Your task to perform on an android device: set an alarm Image 0: 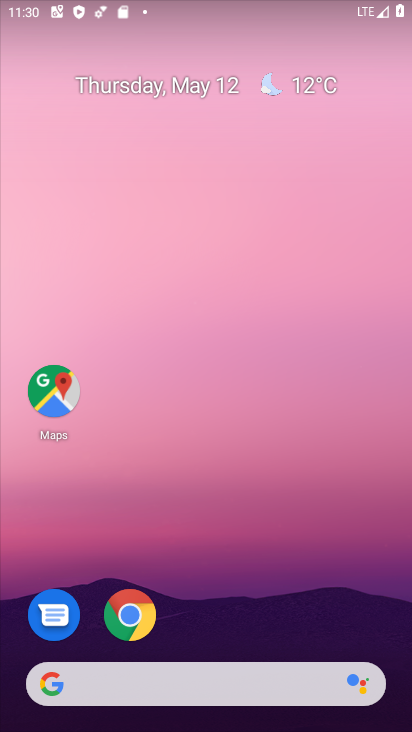
Step 0: drag from (264, 576) to (305, 63)
Your task to perform on an android device: set an alarm Image 1: 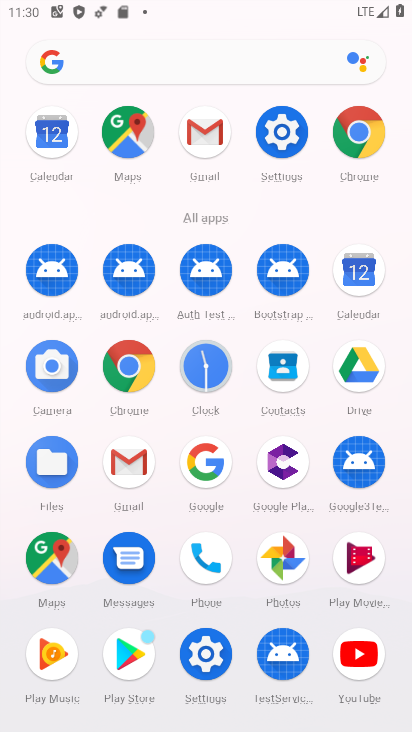
Step 1: click (209, 365)
Your task to perform on an android device: set an alarm Image 2: 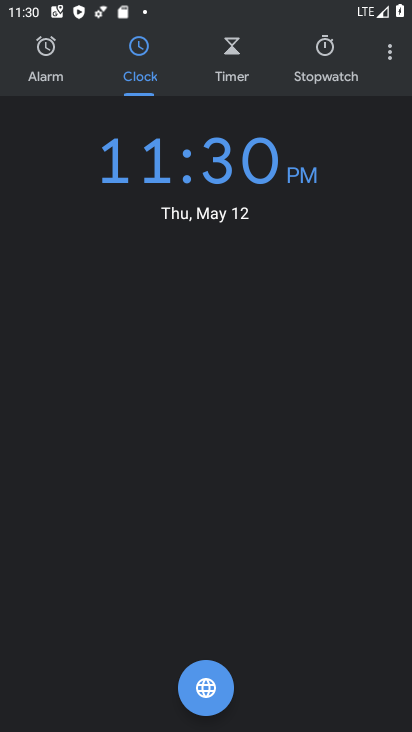
Step 2: click (49, 62)
Your task to perform on an android device: set an alarm Image 3: 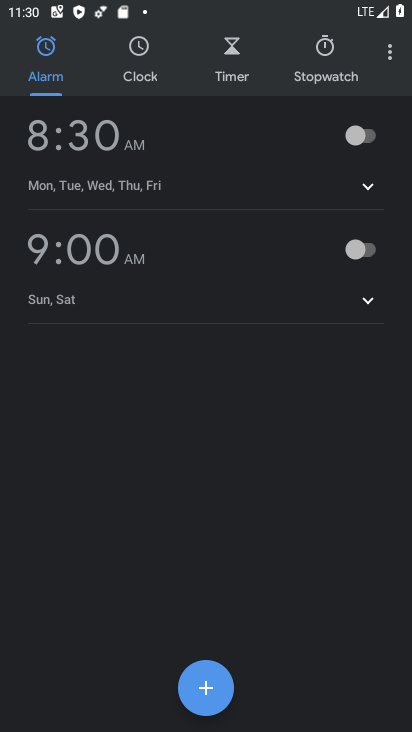
Step 3: click (199, 686)
Your task to perform on an android device: set an alarm Image 4: 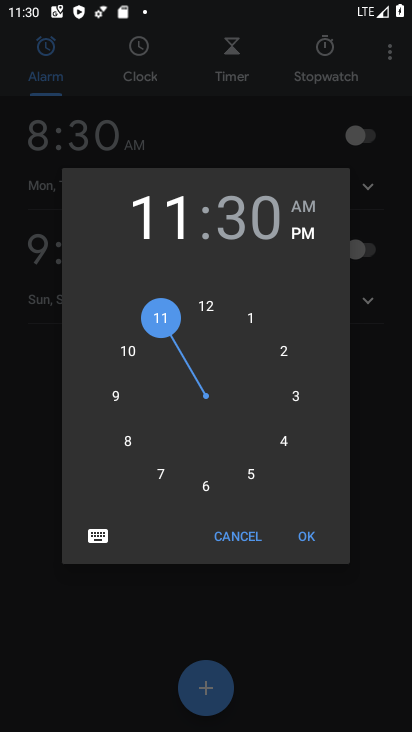
Step 4: click (306, 535)
Your task to perform on an android device: set an alarm Image 5: 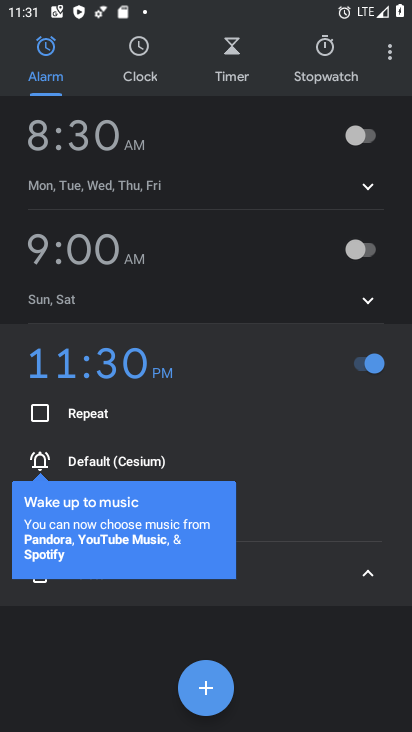
Step 5: task complete